Your task to perform on an android device: manage bookmarks in the chrome app Image 0: 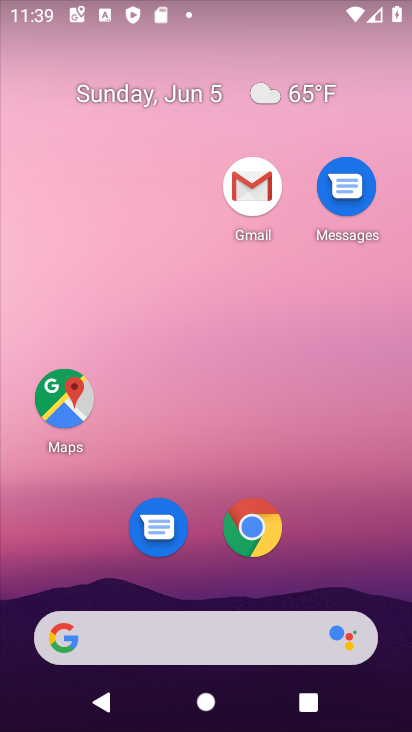
Step 0: click (258, 527)
Your task to perform on an android device: manage bookmarks in the chrome app Image 1: 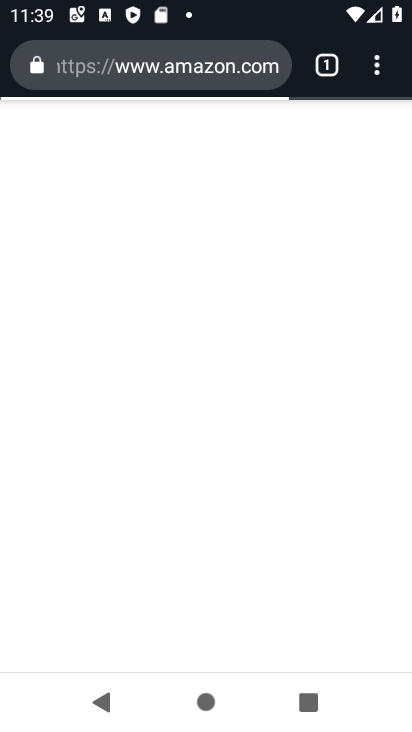
Step 1: click (372, 61)
Your task to perform on an android device: manage bookmarks in the chrome app Image 2: 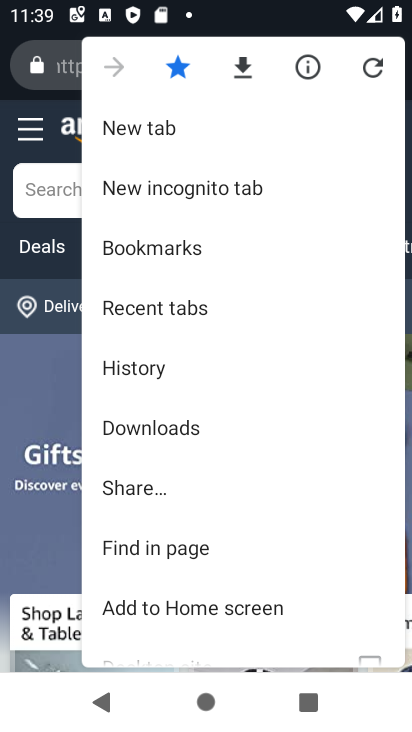
Step 2: drag from (338, 451) to (372, 232)
Your task to perform on an android device: manage bookmarks in the chrome app Image 3: 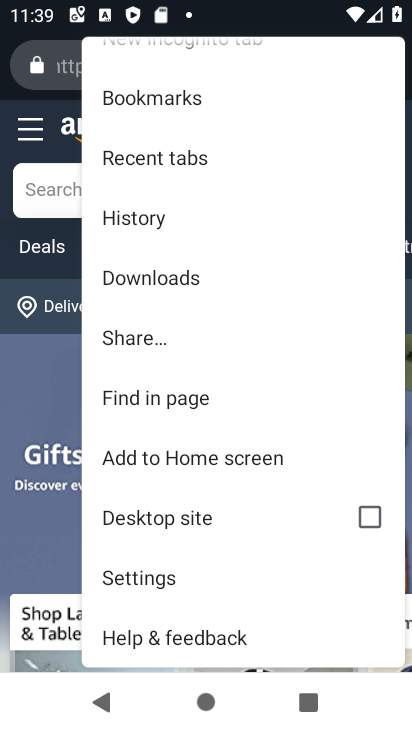
Step 3: click (166, 91)
Your task to perform on an android device: manage bookmarks in the chrome app Image 4: 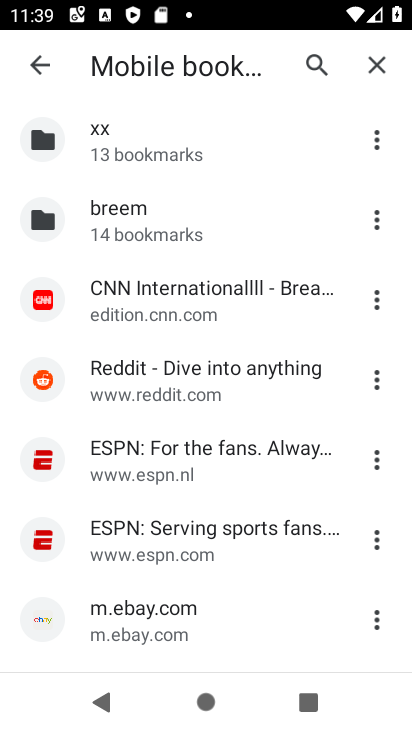
Step 4: drag from (240, 490) to (291, 121)
Your task to perform on an android device: manage bookmarks in the chrome app Image 5: 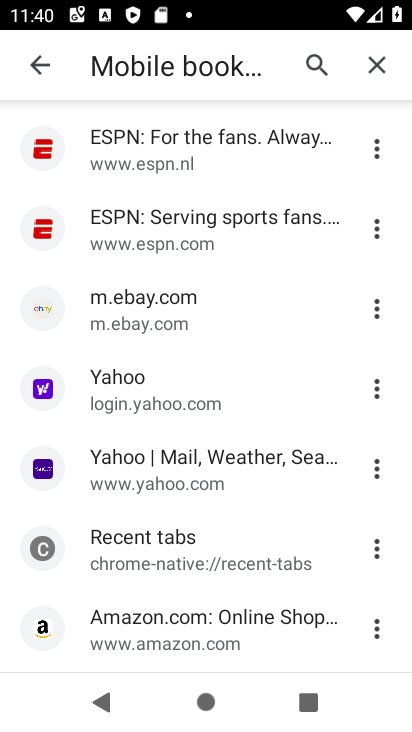
Step 5: click (379, 549)
Your task to perform on an android device: manage bookmarks in the chrome app Image 6: 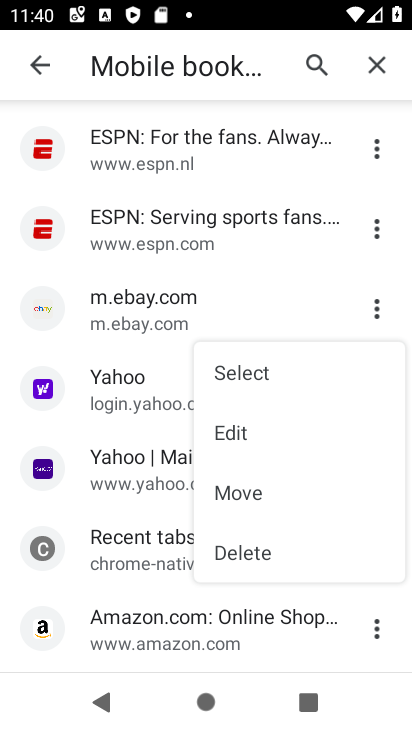
Step 6: click (257, 484)
Your task to perform on an android device: manage bookmarks in the chrome app Image 7: 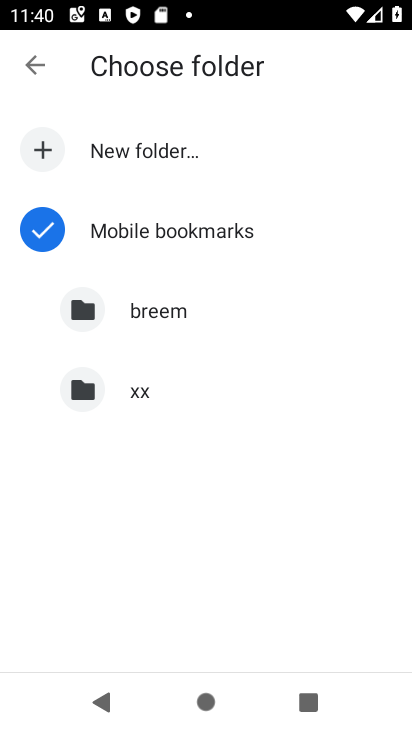
Step 7: click (136, 318)
Your task to perform on an android device: manage bookmarks in the chrome app Image 8: 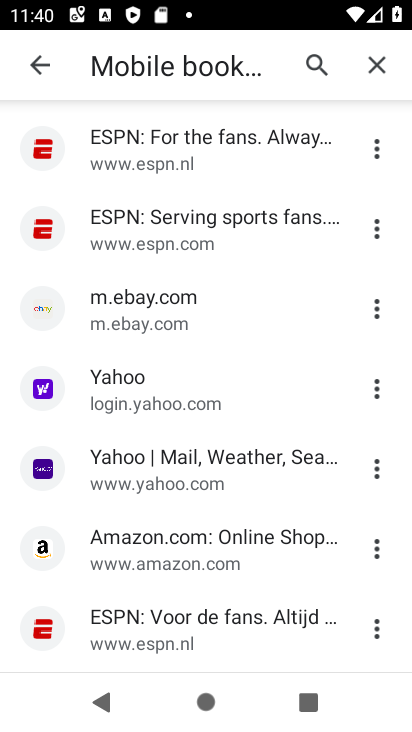
Step 8: click (370, 315)
Your task to perform on an android device: manage bookmarks in the chrome app Image 9: 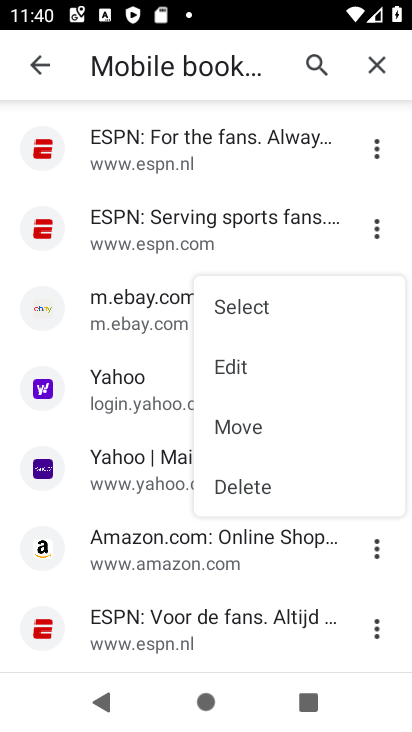
Step 9: click (259, 497)
Your task to perform on an android device: manage bookmarks in the chrome app Image 10: 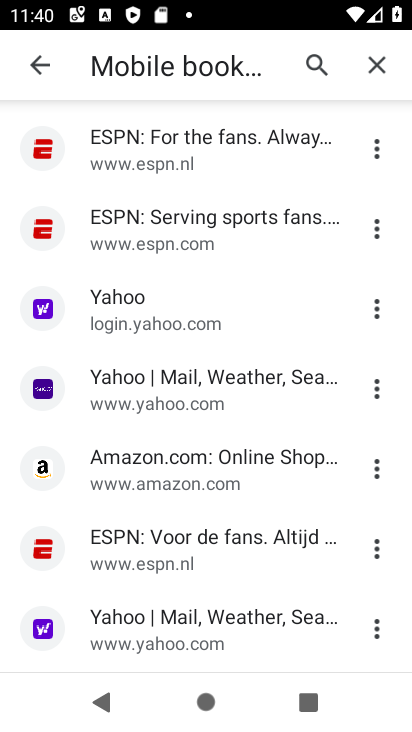
Step 10: task complete